Your task to perform on an android device: change the clock display to analog Image 0: 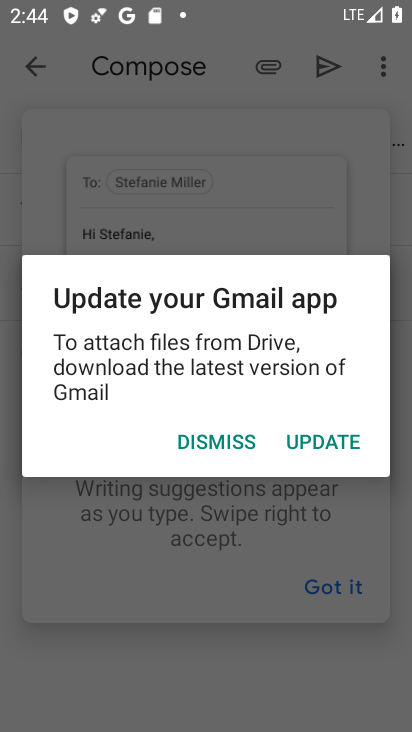
Step 0: press home button
Your task to perform on an android device: change the clock display to analog Image 1: 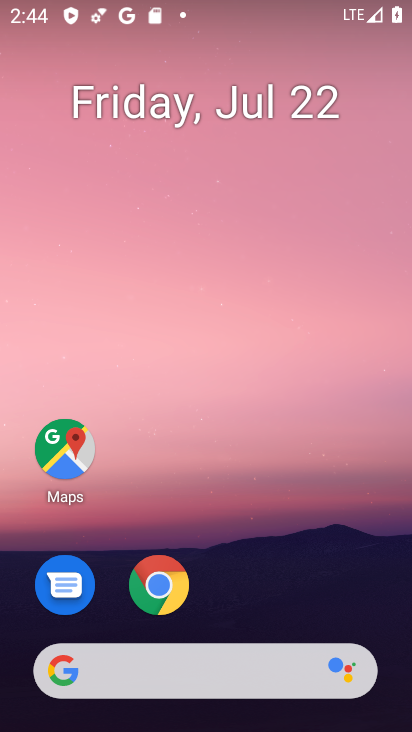
Step 1: drag from (256, 575) to (268, 92)
Your task to perform on an android device: change the clock display to analog Image 2: 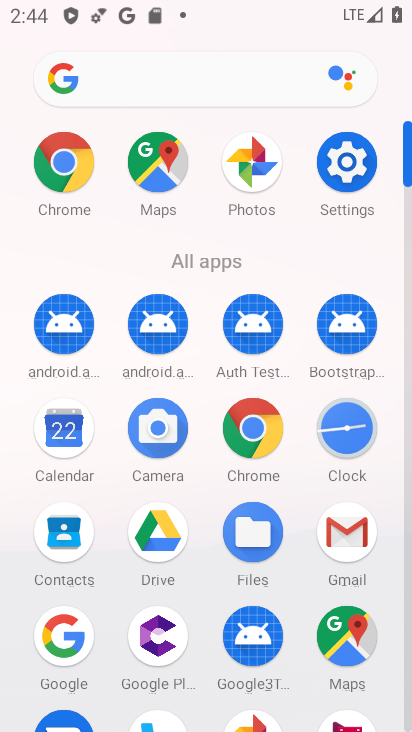
Step 2: click (339, 428)
Your task to perform on an android device: change the clock display to analog Image 3: 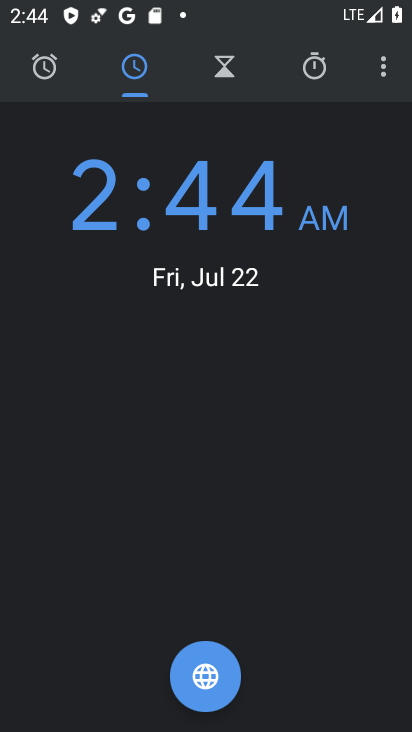
Step 3: click (385, 76)
Your task to perform on an android device: change the clock display to analog Image 4: 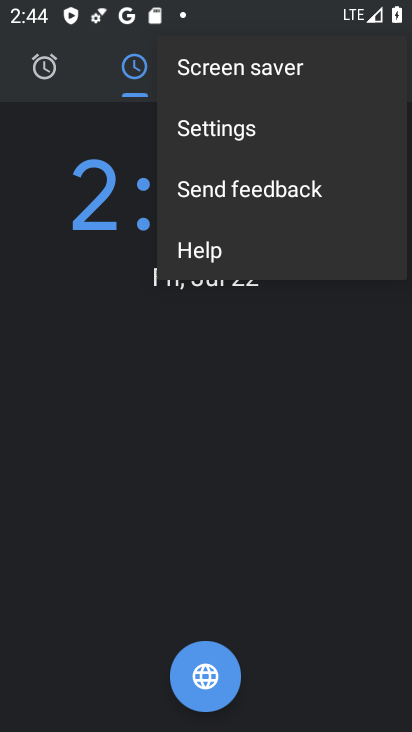
Step 4: click (282, 122)
Your task to perform on an android device: change the clock display to analog Image 5: 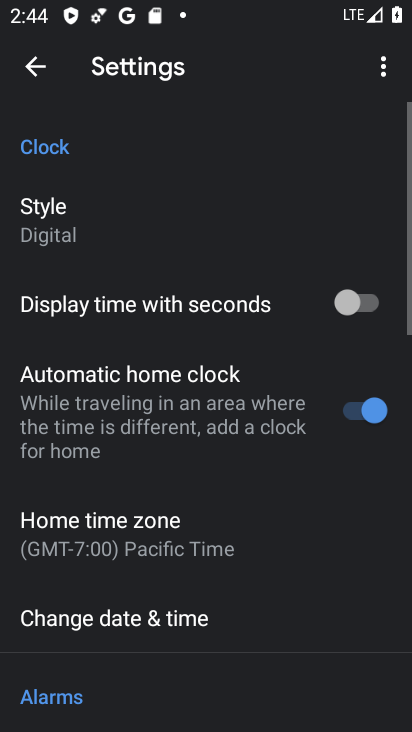
Step 5: click (55, 216)
Your task to perform on an android device: change the clock display to analog Image 6: 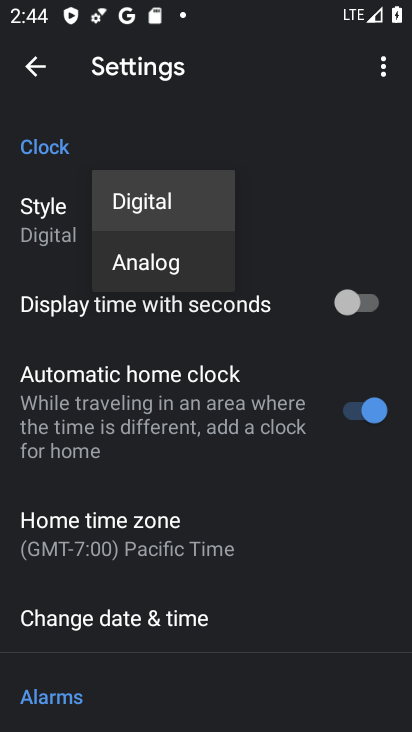
Step 6: click (131, 267)
Your task to perform on an android device: change the clock display to analog Image 7: 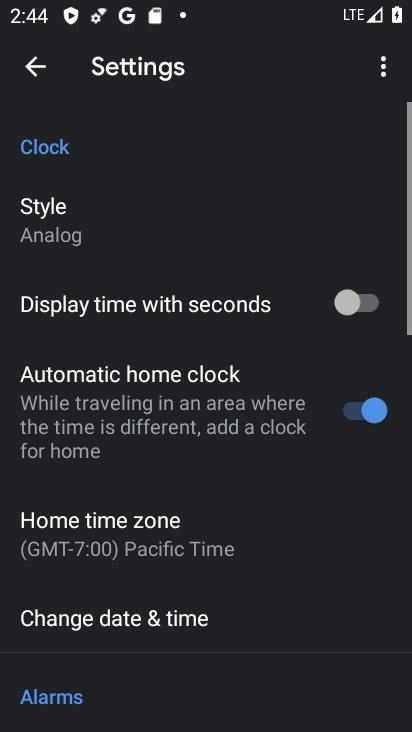
Step 7: click (46, 68)
Your task to perform on an android device: change the clock display to analog Image 8: 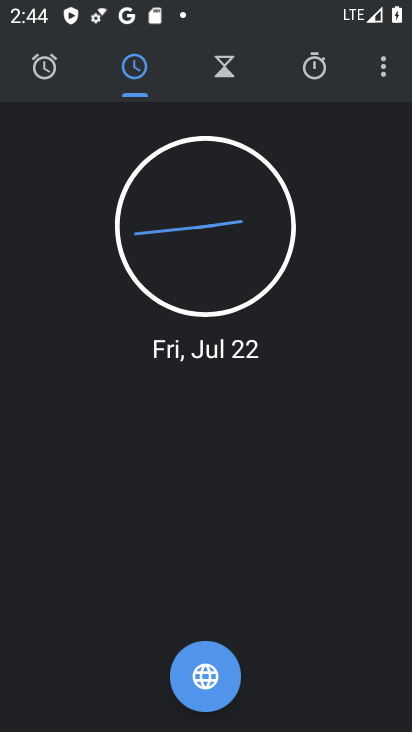
Step 8: task complete